Your task to perform on an android device: What's the weather? Image 0: 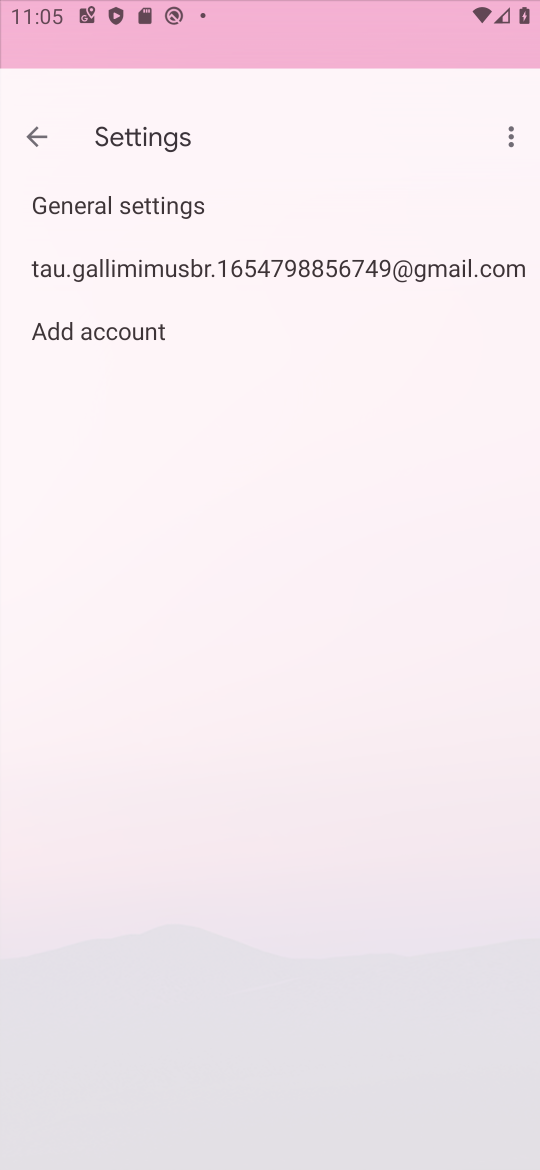
Step 0: click (498, 74)
Your task to perform on an android device: What's the weather? Image 1: 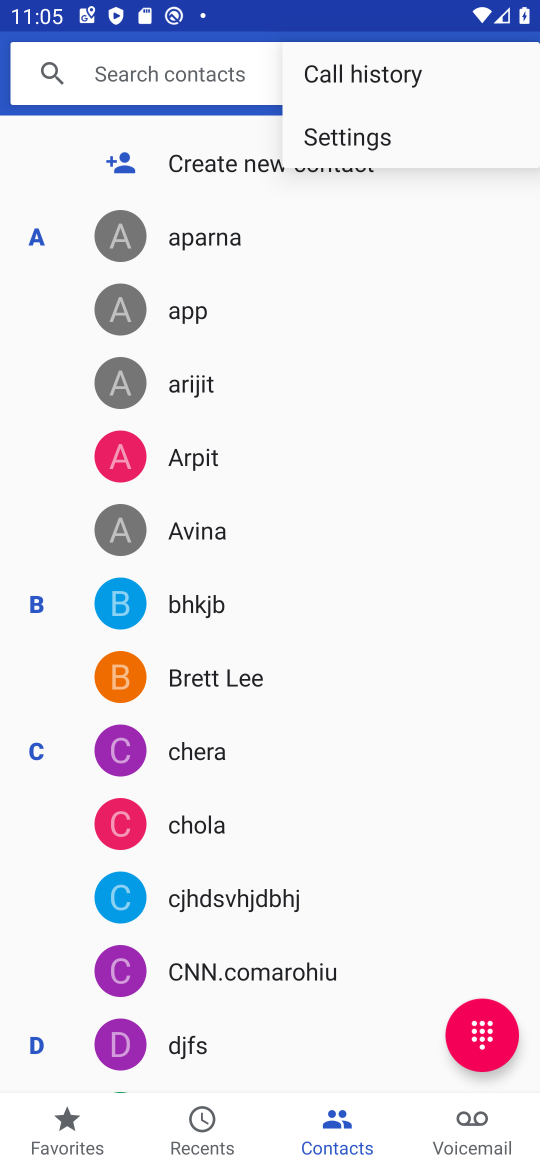
Step 1: press home button
Your task to perform on an android device: What's the weather? Image 2: 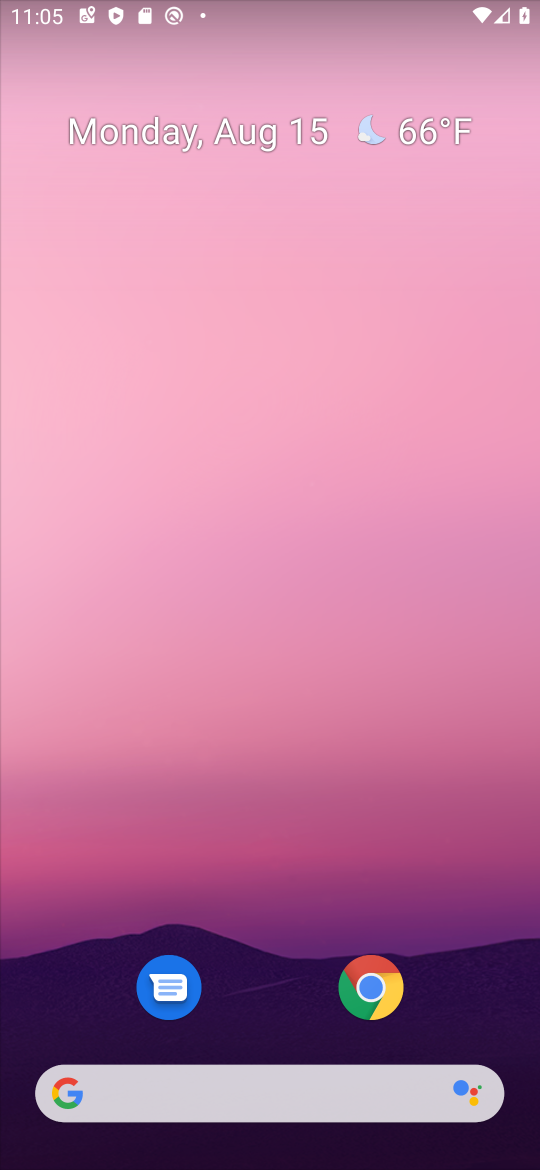
Step 2: click (326, 1106)
Your task to perform on an android device: What's the weather? Image 3: 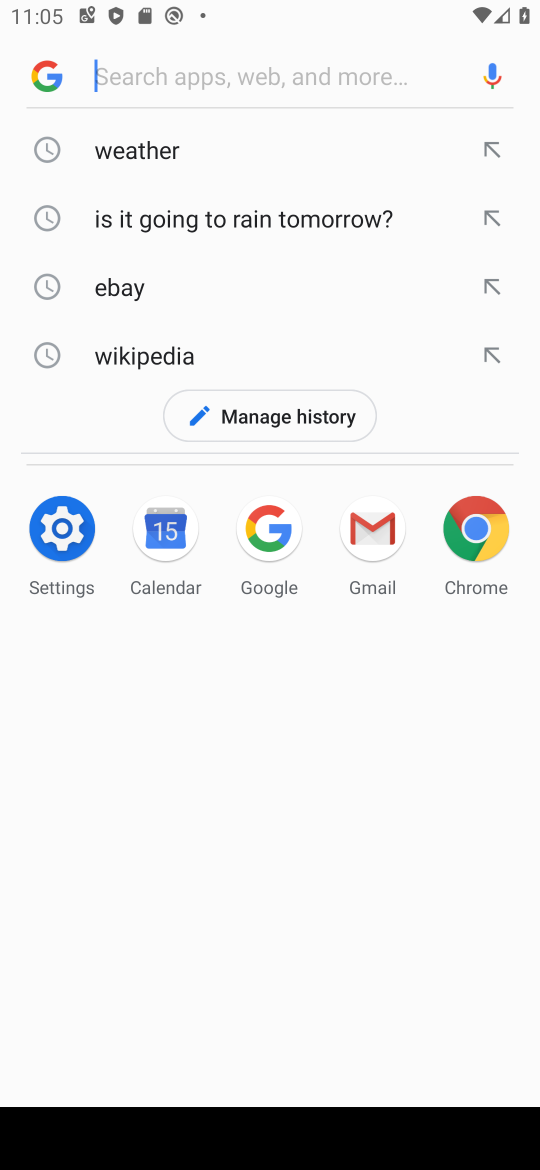
Step 3: click (151, 151)
Your task to perform on an android device: What's the weather? Image 4: 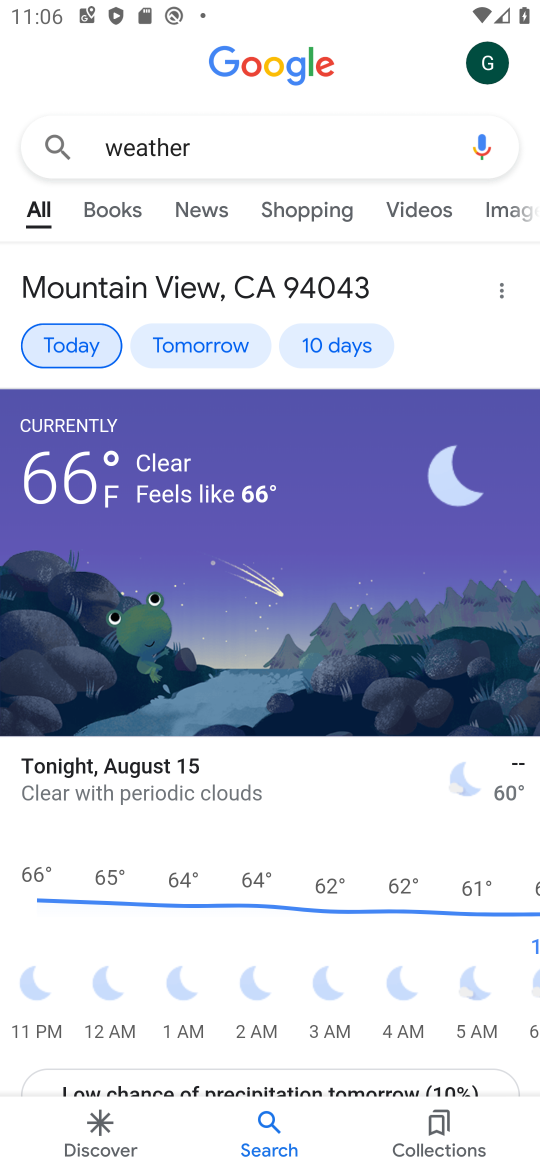
Step 4: task complete